Your task to perform on an android device: What's on my calendar tomorrow? Image 0: 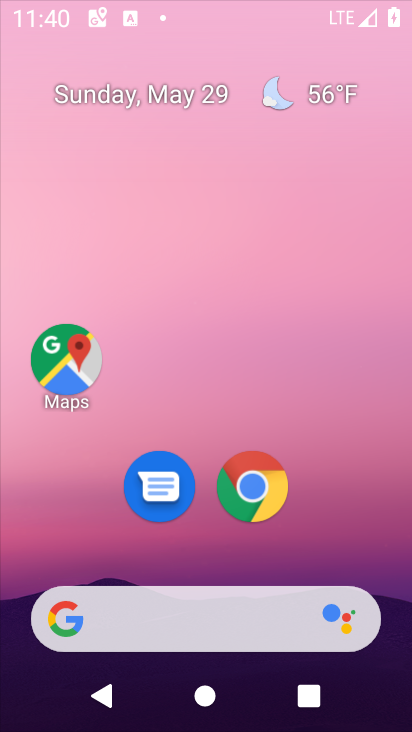
Step 0: drag from (280, 535) to (246, 135)
Your task to perform on an android device: What's on my calendar tomorrow? Image 1: 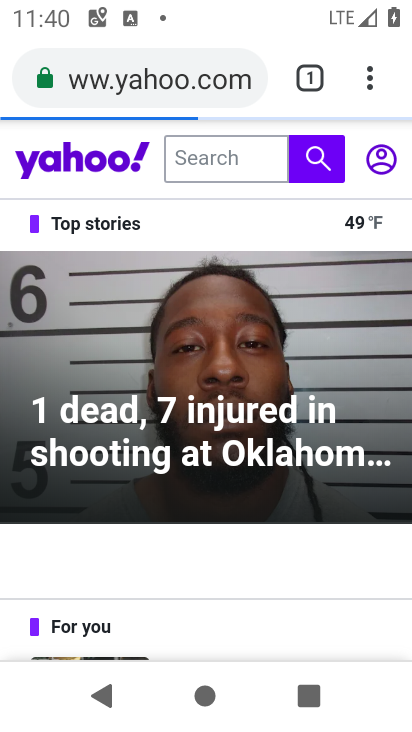
Step 1: press home button
Your task to perform on an android device: What's on my calendar tomorrow? Image 2: 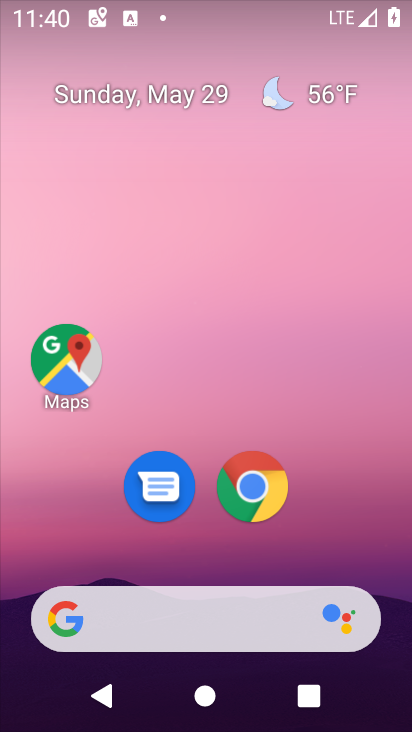
Step 2: drag from (194, 636) to (232, 116)
Your task to perform on an android device: What's on my calendar tomorrow? Image 3: 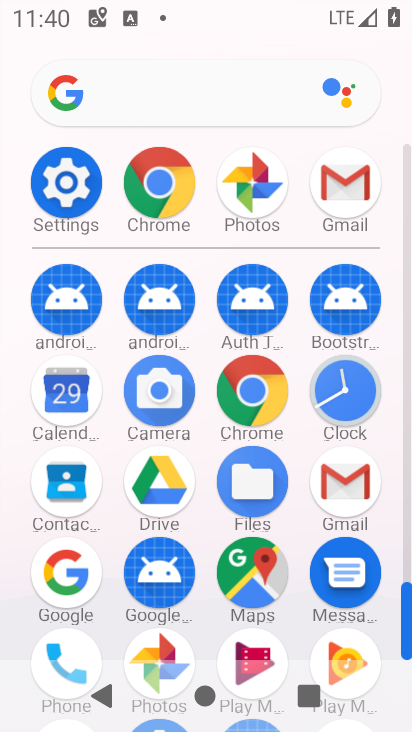
Step 3: click (87, 417)
Your task to perform on an android device: What's on my calendar tomorrow? Image 4: 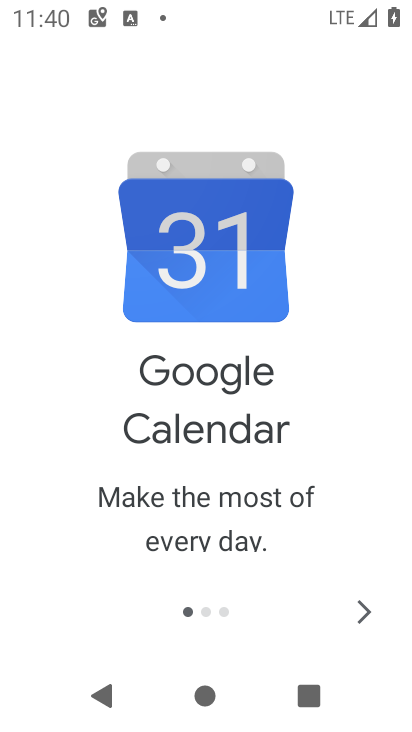
Step 4: click (362, 613)
Your task to perform on an android device: What's on my calendar tomorrow? Image 5: 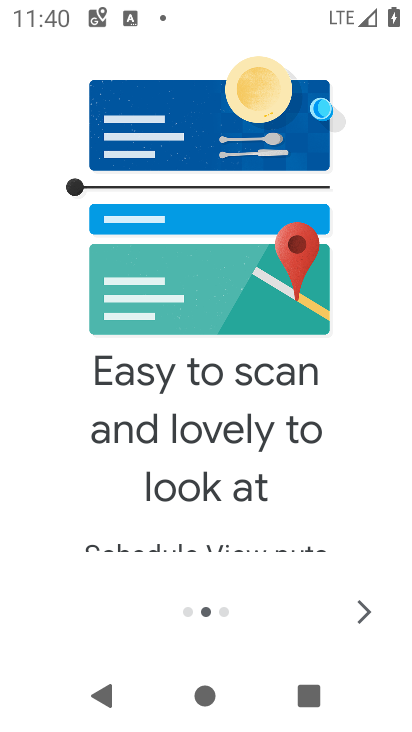
Step 5: click (363, 614)
Your task to perform on an android device: What's on my calendar tomorrow? Image 6: 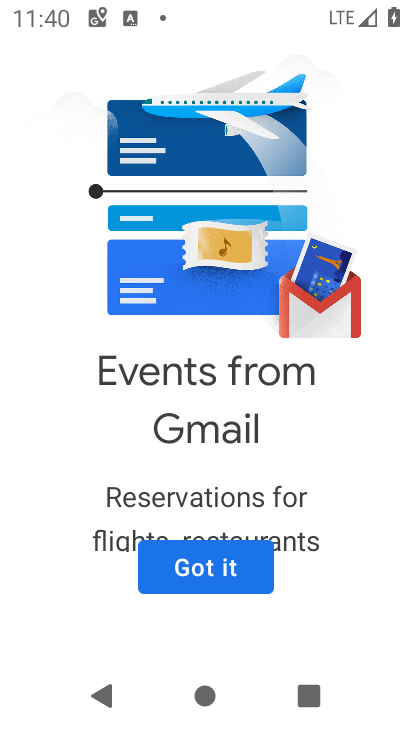
Step 6: click (240, 575)
Your task to perform on an android device: What's on my calendar tomorrow? Image 7: 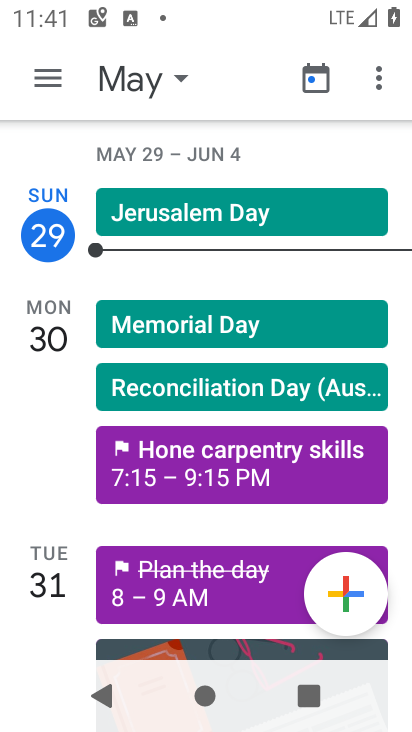
Step 7: task complete